Your task to perform on an android device: uninstall "Google Play Music" Image 0: 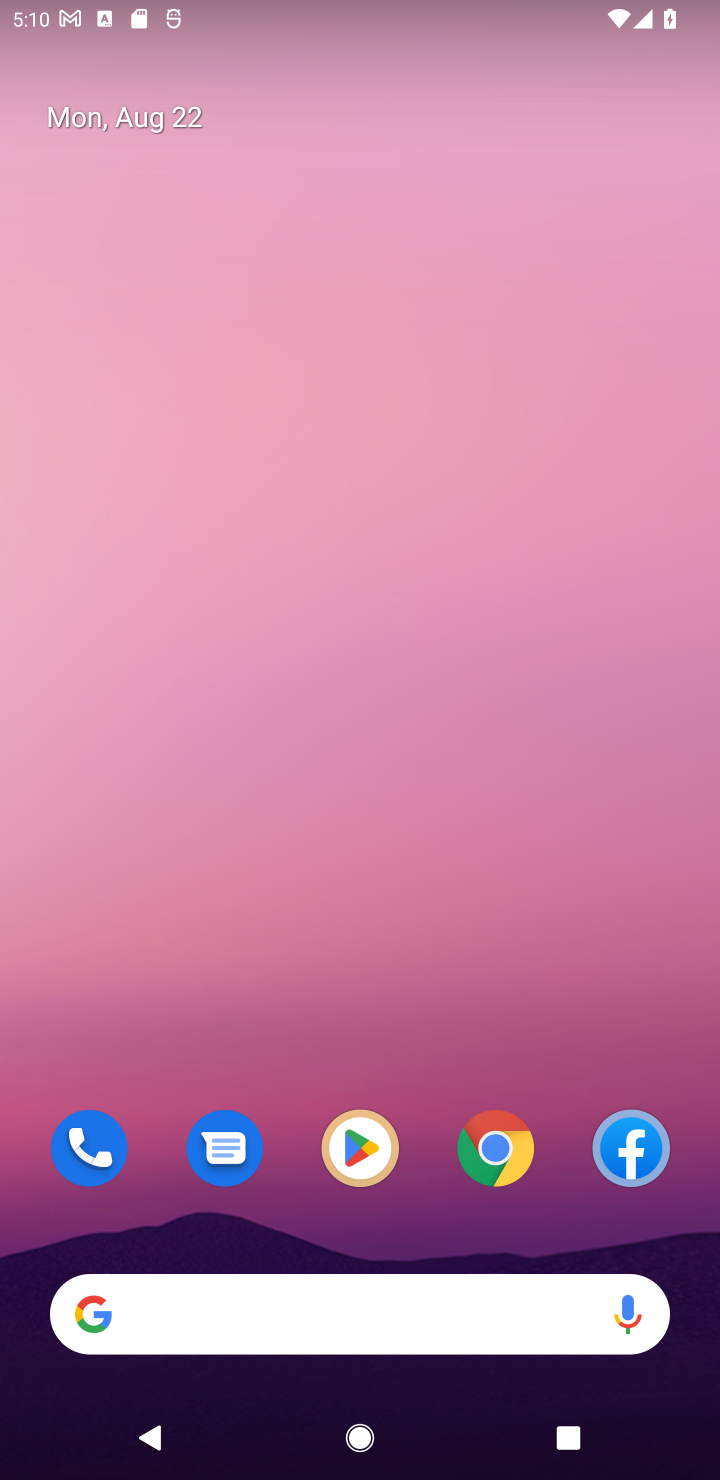
Step 0: click (352, 1140)
Your task to perform on an android device: uninstall "Google Play Music" Image 1: 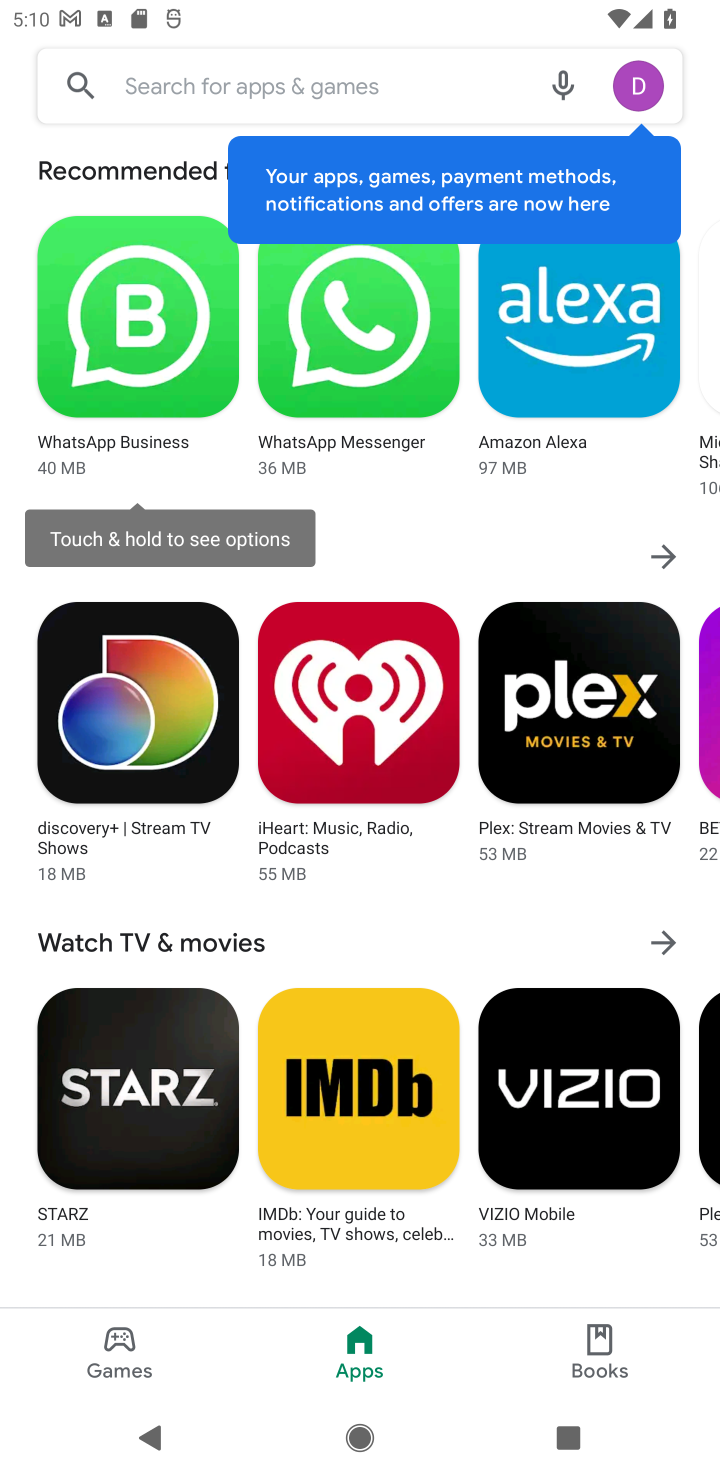
Step 1: click (270, 84)
Your task to perform on an android device: uninstall "Google Play Music" Image 2: 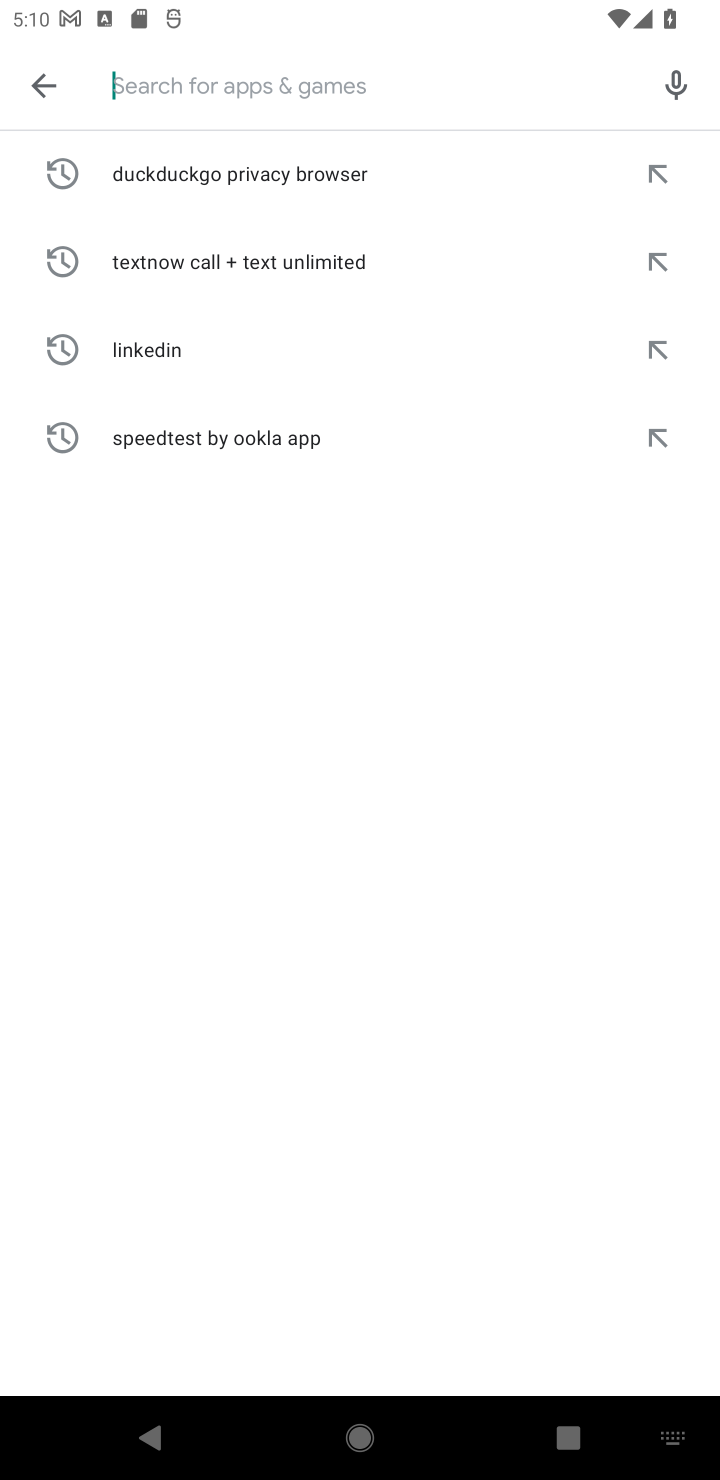
Step 2: type "Google Play Music"
Your task to perform on an android device: uninstall "Google Play Music" Image 3: 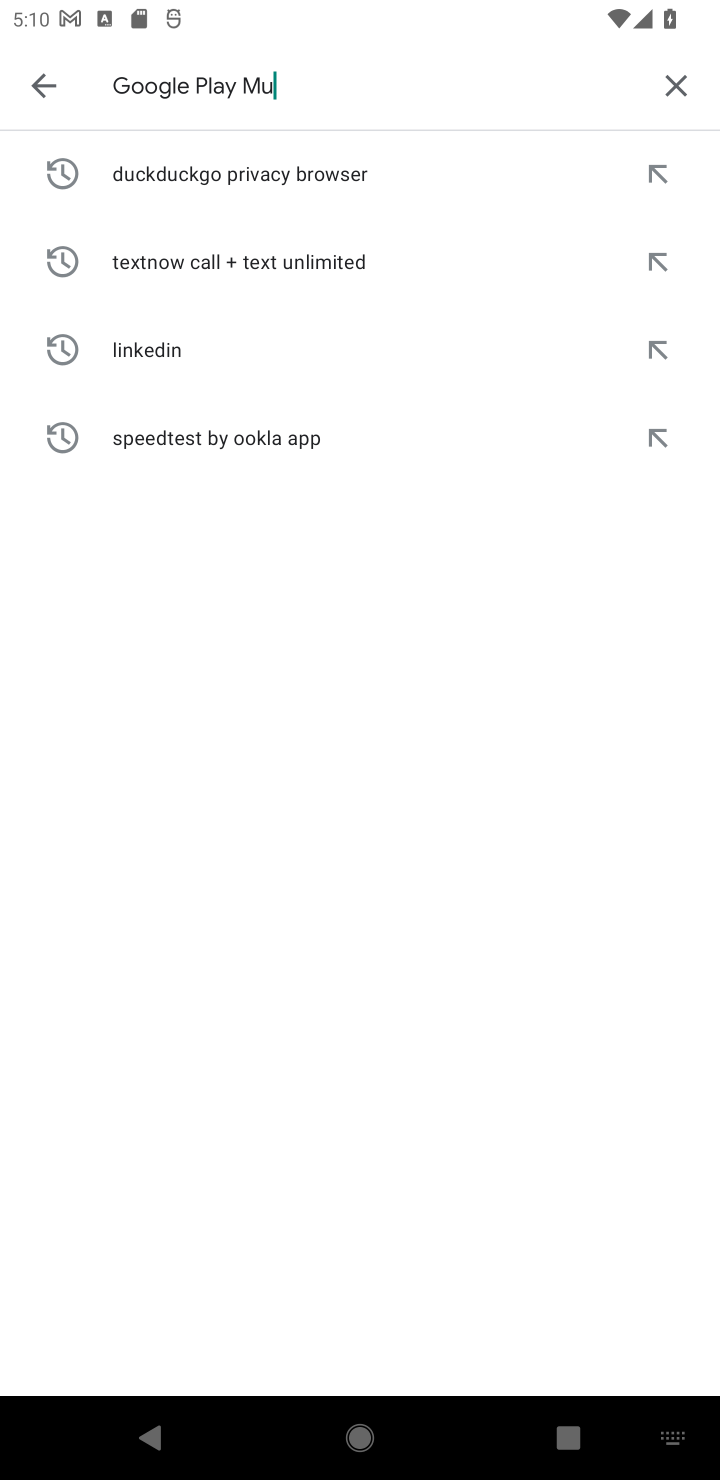
Step 3: type ""
Your task to perform on an android device: uninstall "Google Play Music" Image 4: 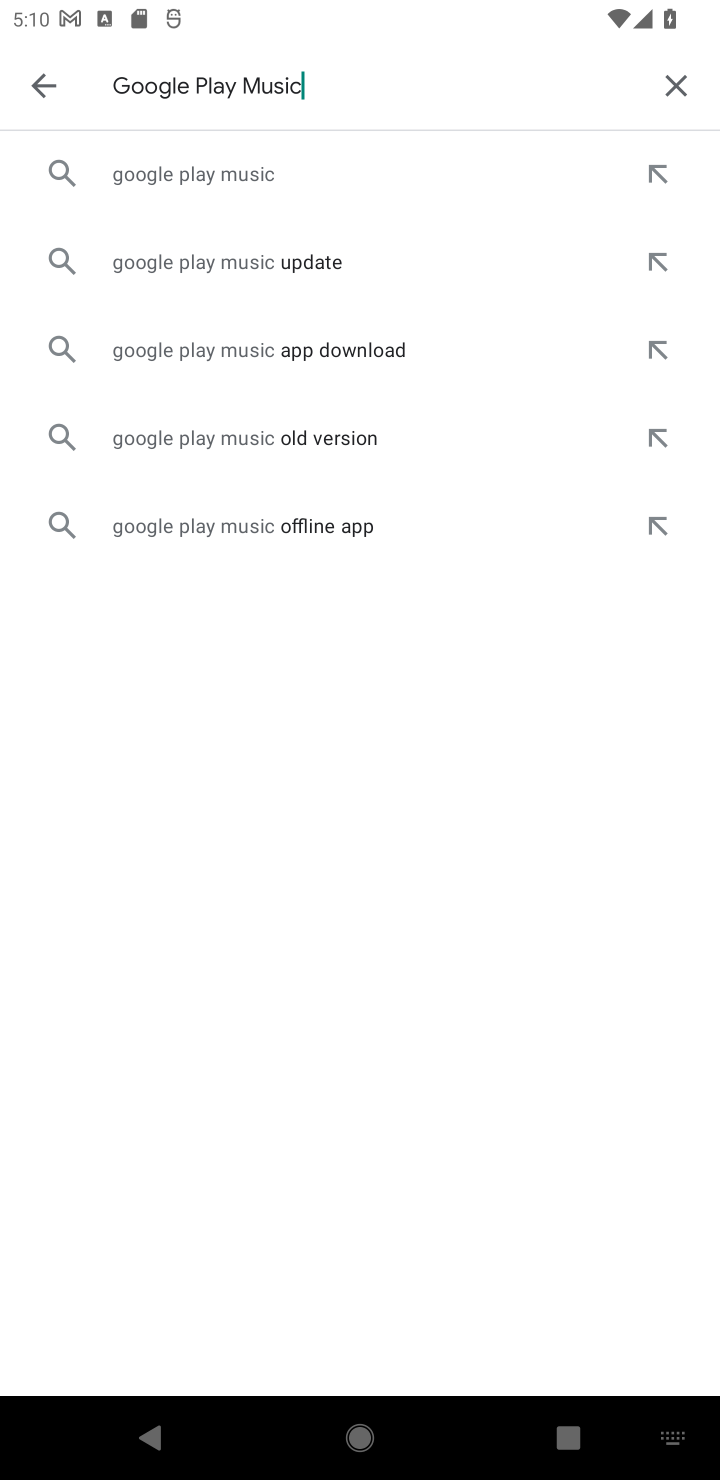
Step 4: click (148, 180)
Your task to perform on an android device: uninstall "Google Play Music" Image 5: 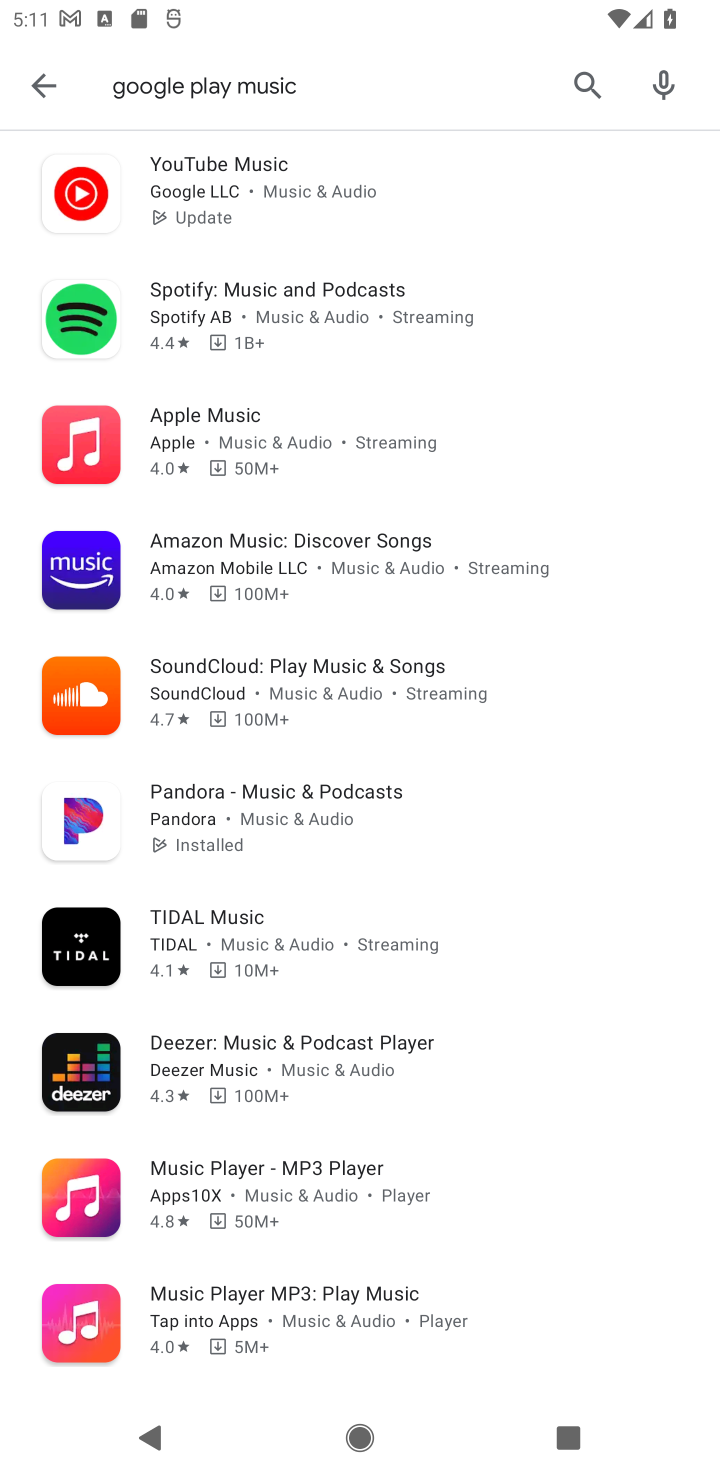
Step 5: task complete